Your task to perform on an android device: turn on priority inbox in the gmail app Image 0: 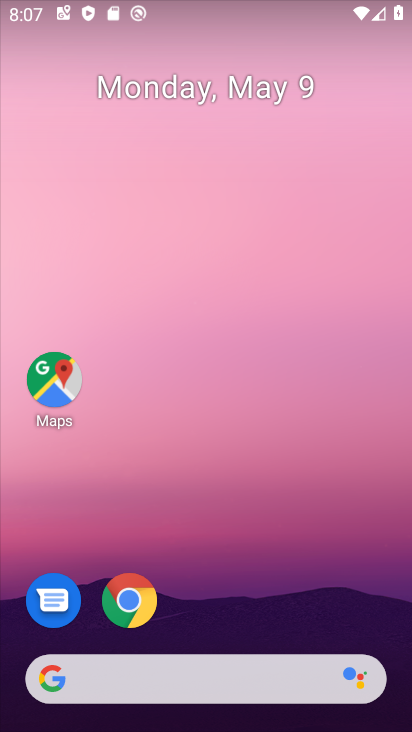
Step 0: drag from (237, 524) to (218, 46)
Your task to perform on an android device: turn on priority inbox in the gmail app Image 1: 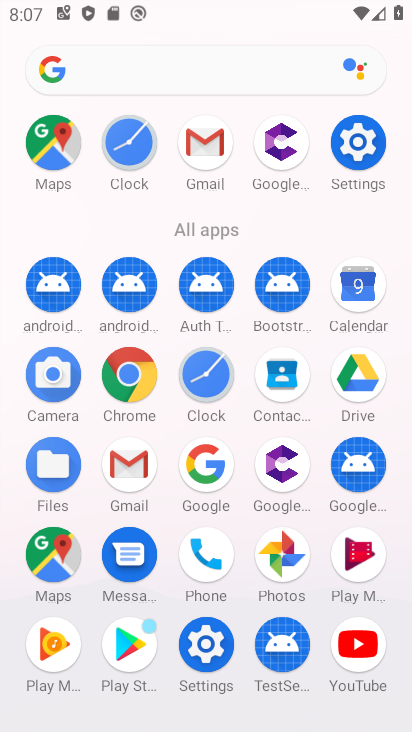
Step 1: drag from (10, 533) to (24, 306)
Your task to perform on an android device: turn on priority inbox in the gmail app Image 2: 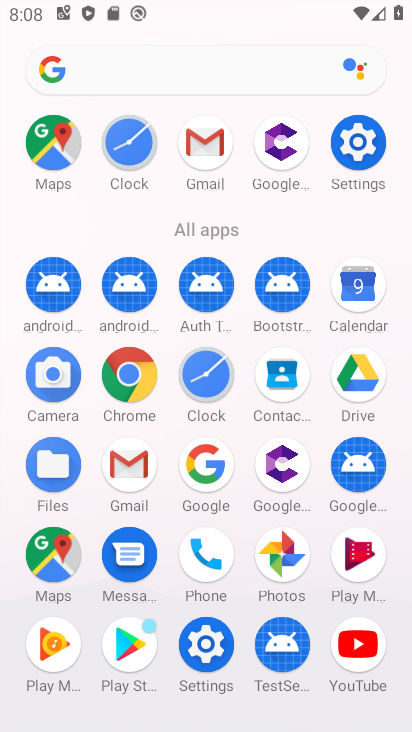
Step 2: click (124, 458)
Your task to perform on an android device: turn on priority inbox in the gmail app Image 3: 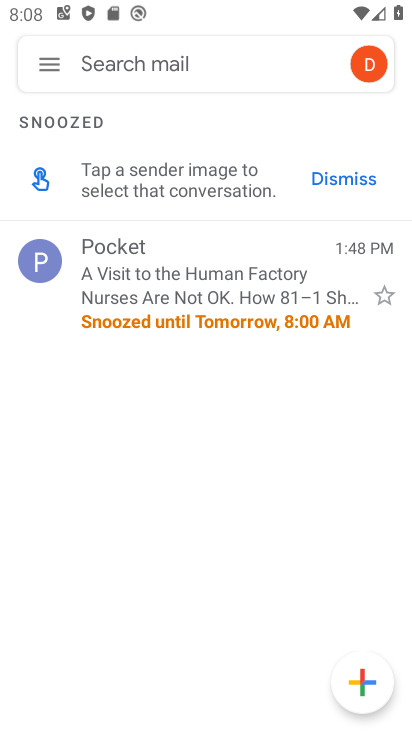
Step 3: click (49, 66)
Your task to perform on an android device: turn on priority inbox in the gmail app Image 4: 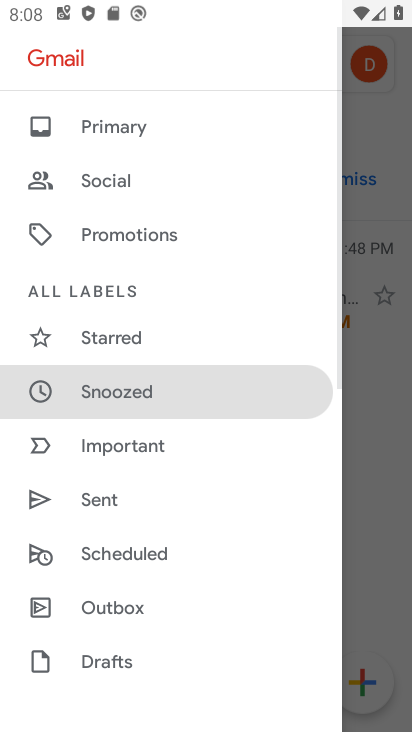
Step 4: drag from (193, 654) to (231, 176)
Your task to perform on an android device: turn on priority inbox in the gmail app Image 5: 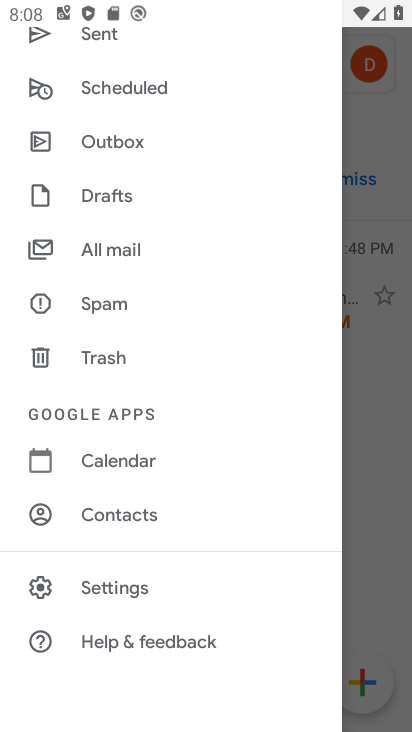
Step 5: click (129, 581)
Your task to perform on an android device: turn on priority inbox in the gmail app Image 6: 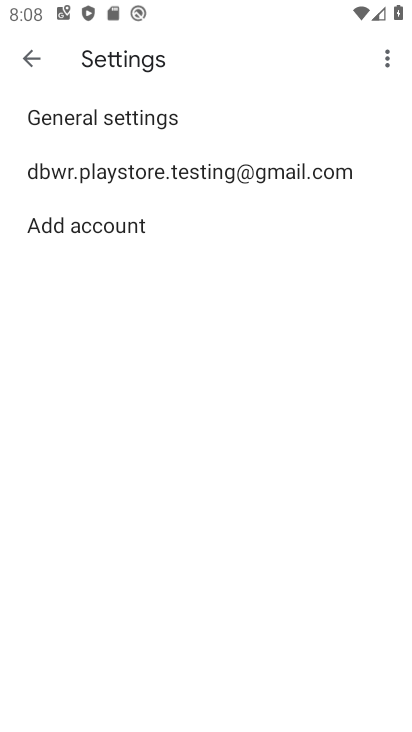
Step 6: click (167, 180)
Your task to perform on an android device: turn on priority inbox in the gmail app Image 7: 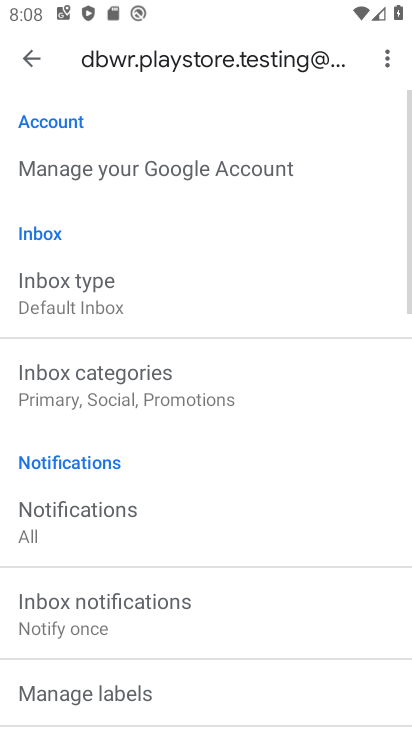
Step 7: drag from (224, 625) to (210, 222)
Your task to perform on an android device: turn on priority inbox in the gmail app Image 8: 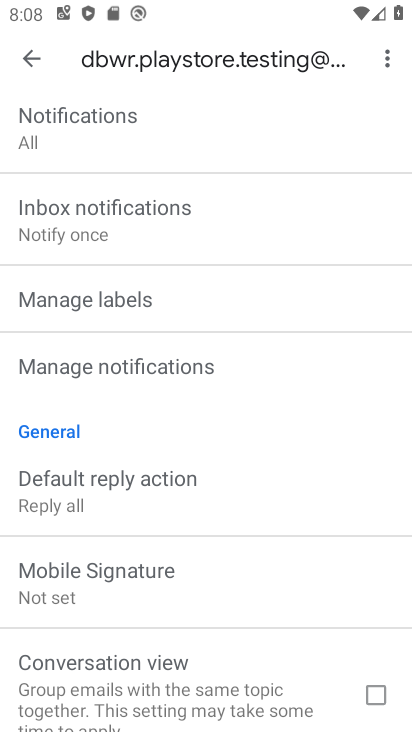
Step 8: drag from (204, 623) to (206, 208)
Your task to perform on an android device: turn on priority inbox in the gmail app Image 9: 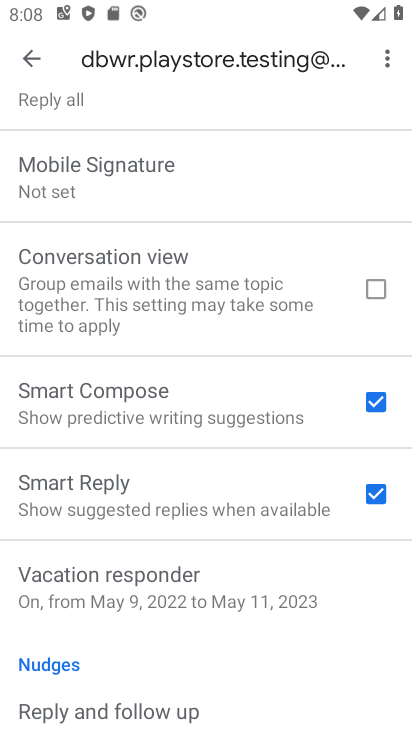
Step 9: drag from (204, 677) to (228, 180)
Your task to perform on an android device: turn on priority inbox in the gmail app Image 10: 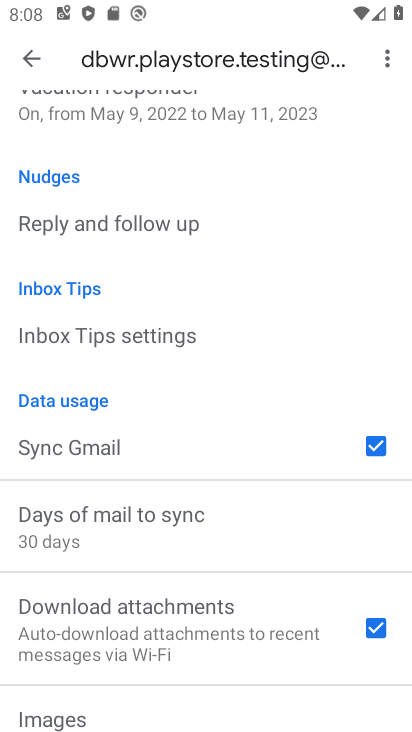
Step 10: drag from (182, 623) to (223, 193)
Your task to perform on an android device: turn on priority inbox in the gmail app Image 11: 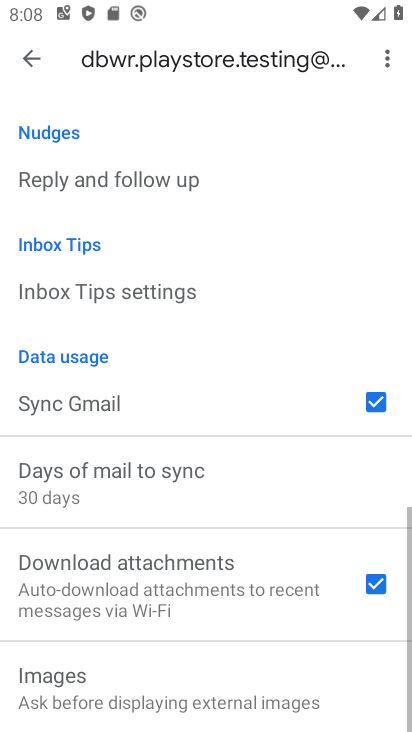
Step 11: drag from (202, 236) to (222, 584)
Your task to perform on an android device: turn on priority inbox in the gmail app Image 12: 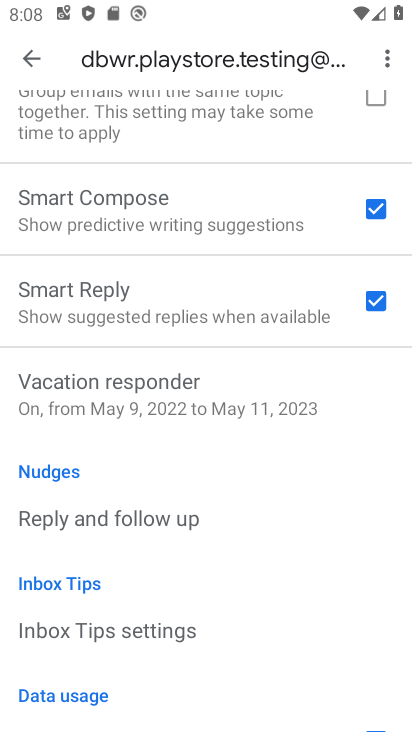
Step 12: drag from (255, 338) to (273, 660)
Your task to perform on an android device: turn on priority inbox in the gmail app Image 13: 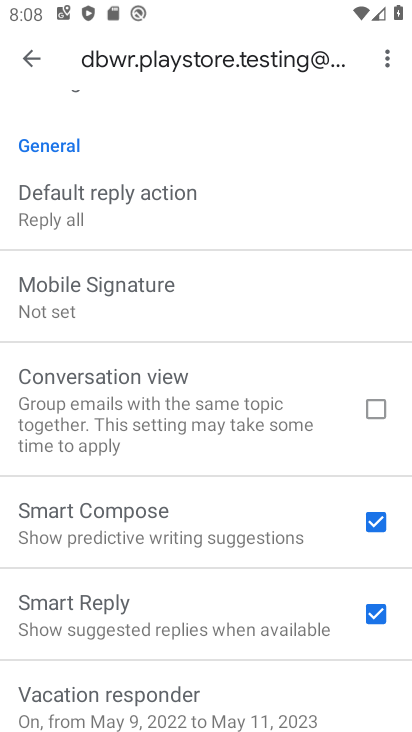
Step 13: drag from (253, 255) to (216, 602)
Your task to perform on an android device: turn on priority inbox in the gmail app Image 14: 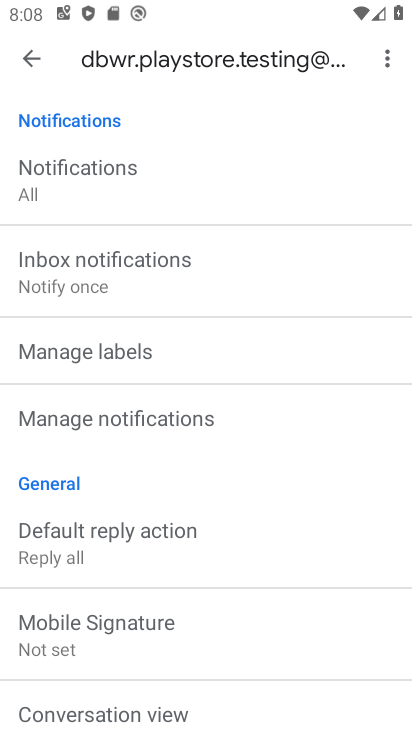
Step 14: drag from (203, 235) to (223, 649)
Your task to perform on an android device: turn on priority inbox in the gmail app Image 15: 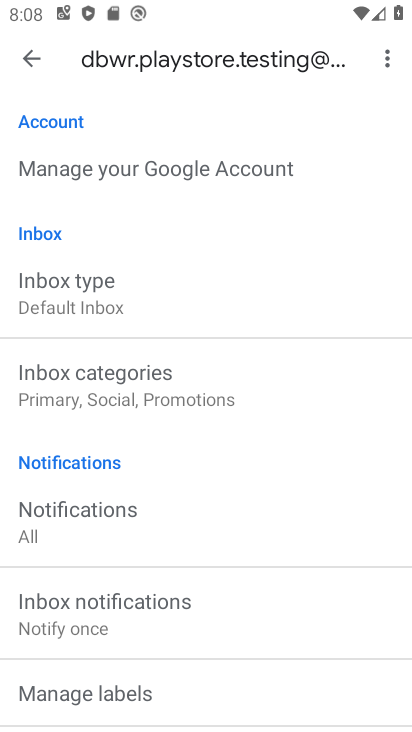
Step 15: click (147, 298)
Your task to perform on an android device: turn on priority inbox in the gmail app Image 16: 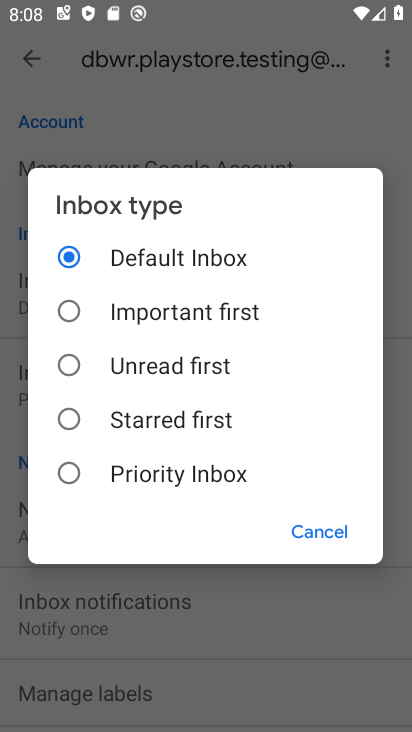
Step 16: click (150, 473)
Your task to perform on an android device: turn on priority inbox in the gmail app Image 17: 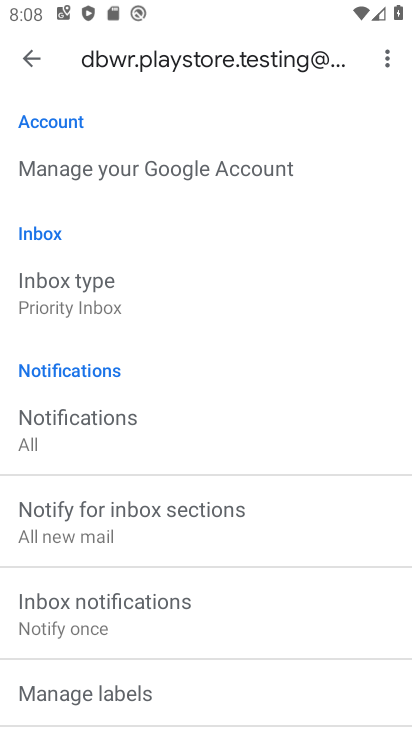
Step 17: task complete